Your task to perform on an android device: turn on notifications settings in the gmail app Image 0: 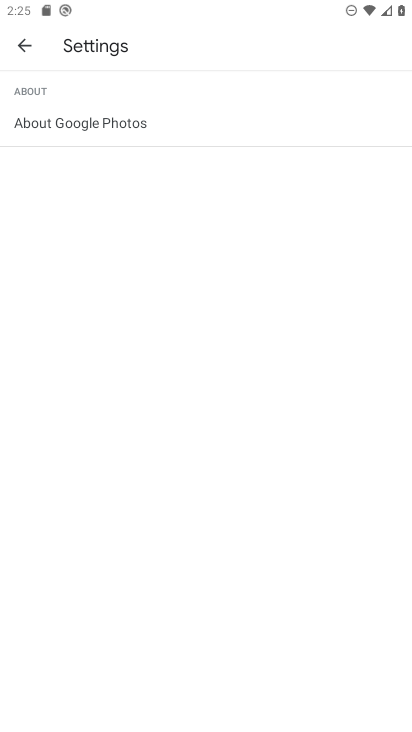
Step 0: press home button
Your task to perform on an android device: turn on notifications settings in the gmail app Image 1: 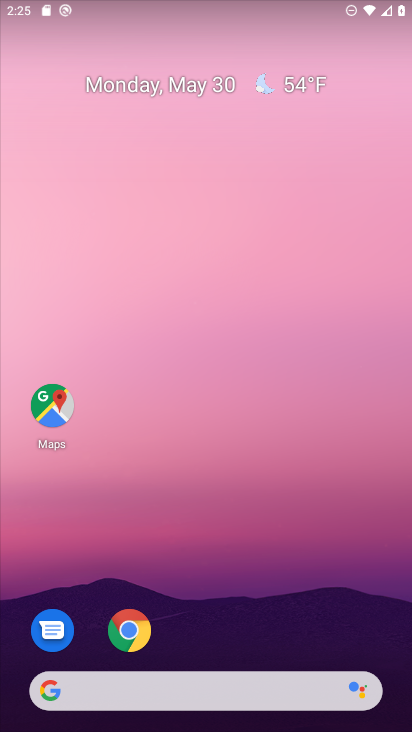
Step 1: drag from (123, 698) to (303, 125)
Your task to perform on an android device: turn on notifications settings in the gmail app Image 2: 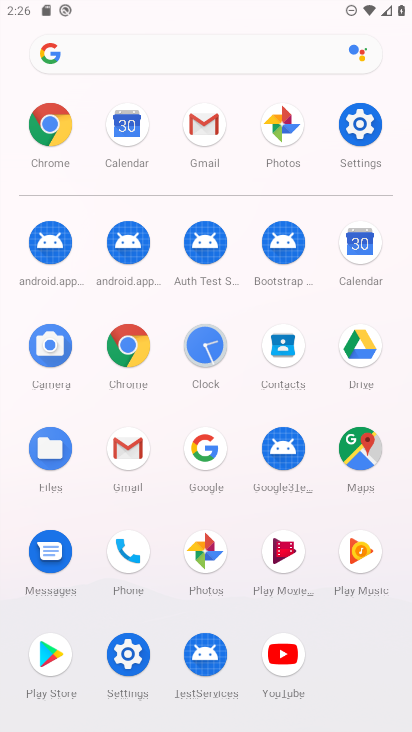
Step 2: click (200, 139)
Your task to perform on an android device: turn on notifications settings in the gmail app Image 3: 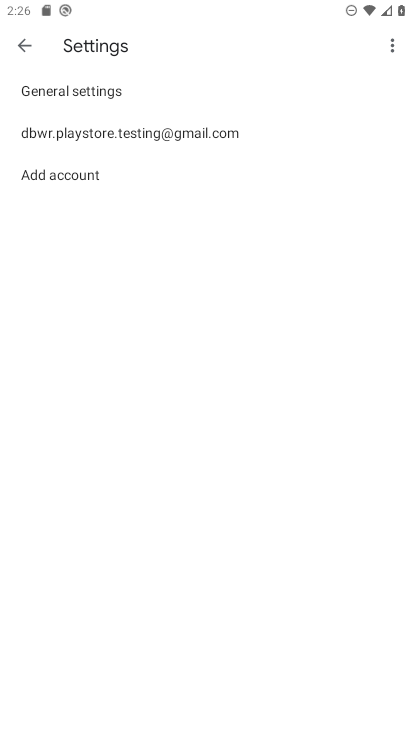
Step 3: click (170, 133)
Your task to perform on an android device: turn on notifications settings in the gmail app Image 4: 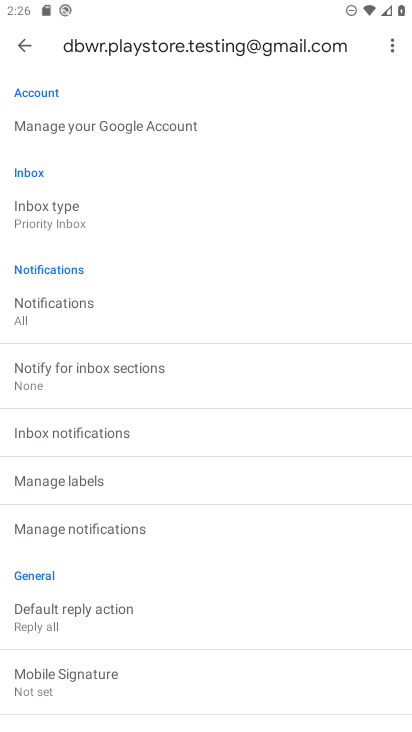
Step 4: click (84, 316)
Your task to perform on an android device: turn on notifications settings in the gmail app Image 5: 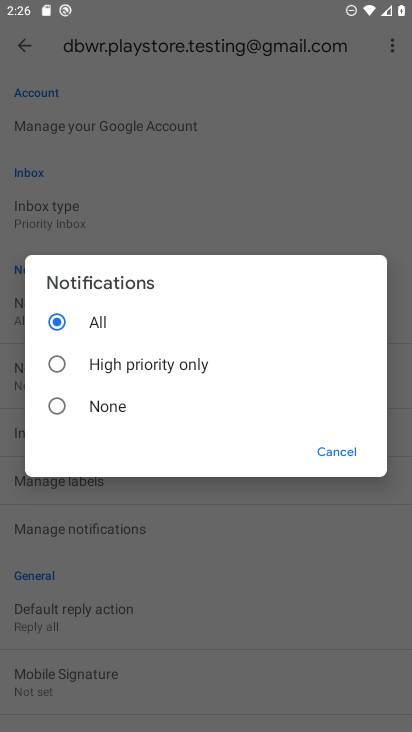
Step 5: task complete